Your task to perform on an android device: Open wifi settings Image 0: 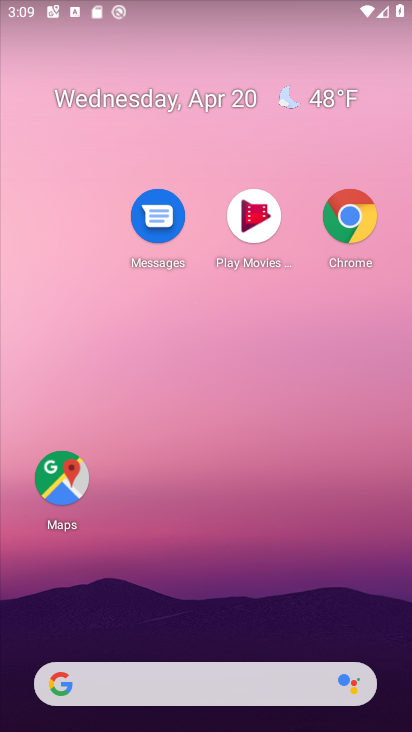
Step 0: drag from (294, 611) to (346, 104)
Your task to perform on an android device: Open wifi settings Image 1: 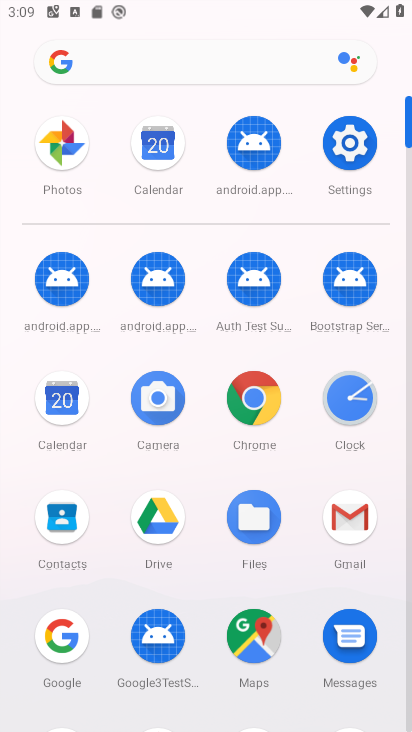
Step 1: click (367, 156)
Your task to perform on an android device: Open wifi settings Image 2: 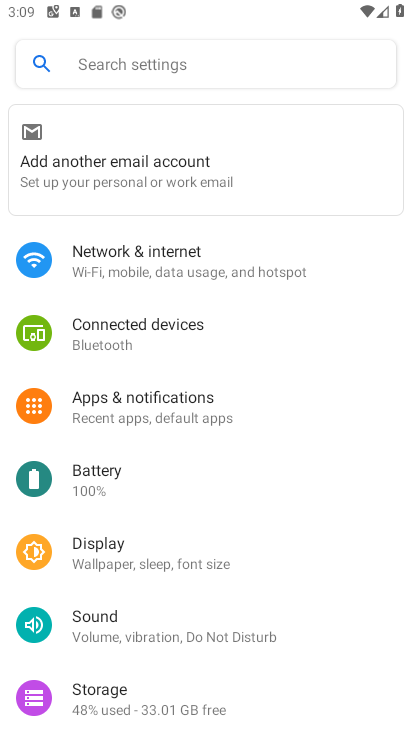
Step 2: click (212, 273)
Your task to perform on an android device: Open wifi settings Image 3: 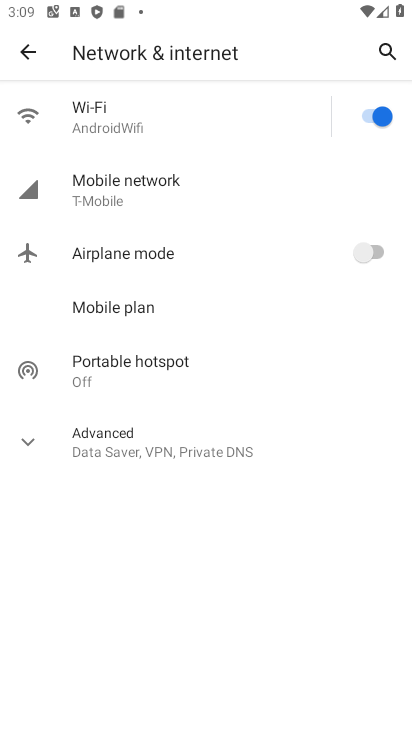
Step 3: click (185, 114)
Your task to perform on an android device: Open wifi settings Image 4: 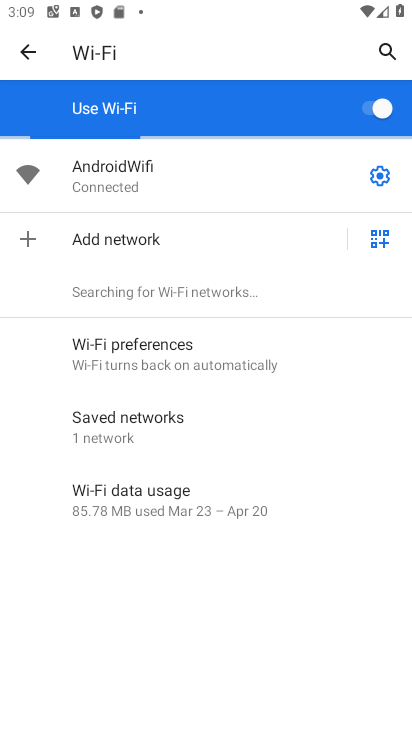
Step 4: task complete